Your task to perform on an android device: turn on airplane mode Image 0: 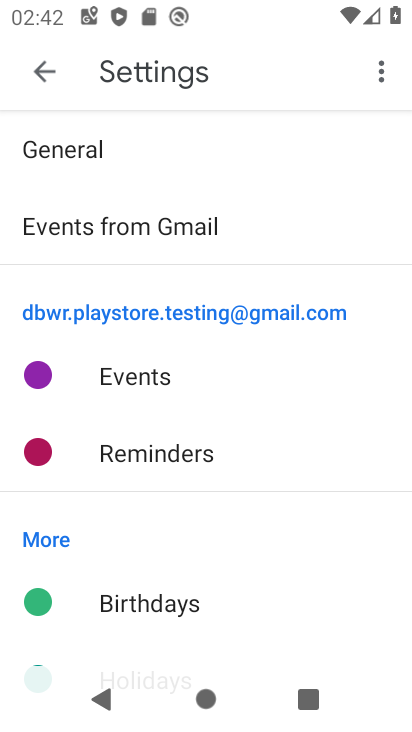
Step 0: press home button
Your task to perform on an android device: turn on airplane mode Image 1: 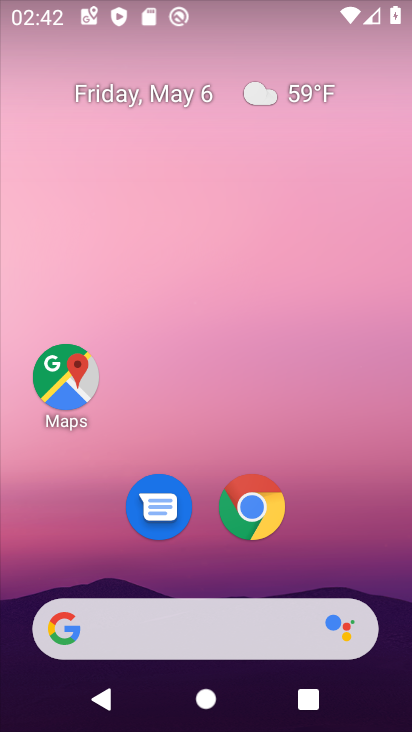
Step 1: drag from (334, 542) to (369, 146)
Your task to perform on an android device: turn on airplane mode Image 2: 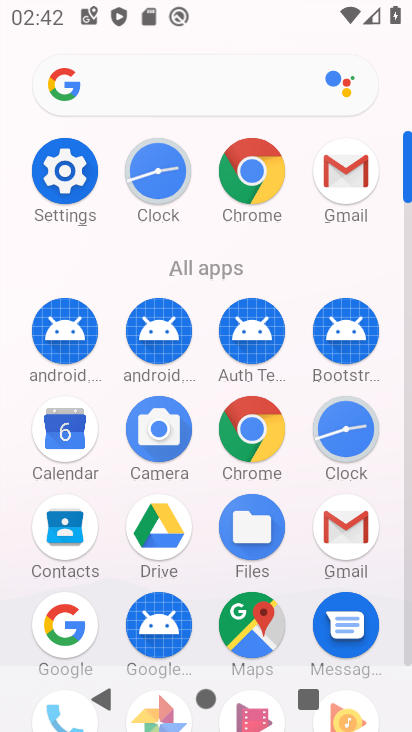
Step 2: click (68, 175)
Your task to perform on an android device: turn on airplane mode Image 3: 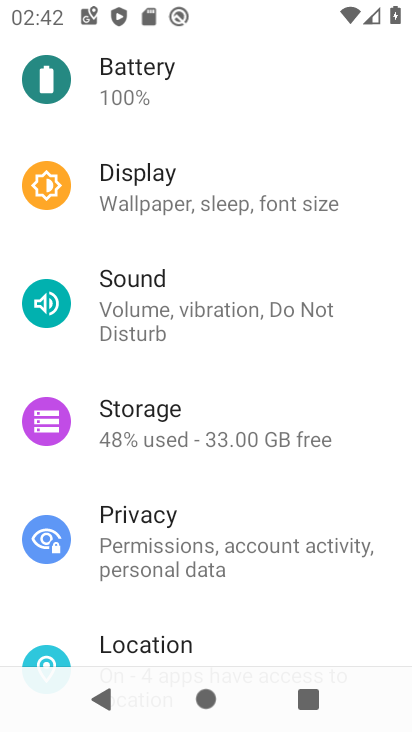
Step 3: drag from (254, 161) to (277, 591)
Your task to perform on an android device: turn on airplane mode Image 4: 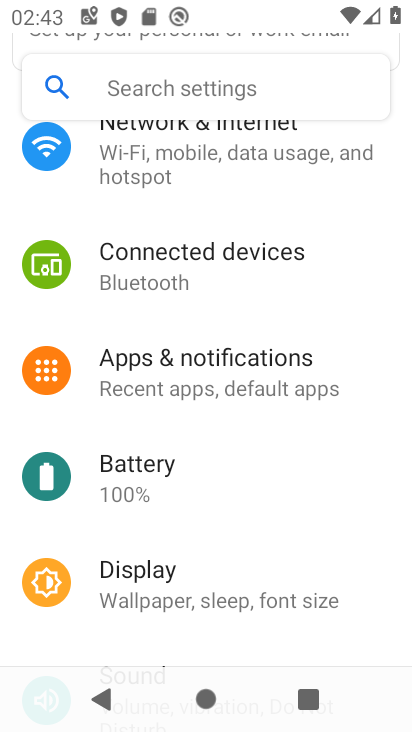
Step 4: drag from (249, 257) to (235, 421)
Your task to perform on an android device: turn on airplane mode Image 5: 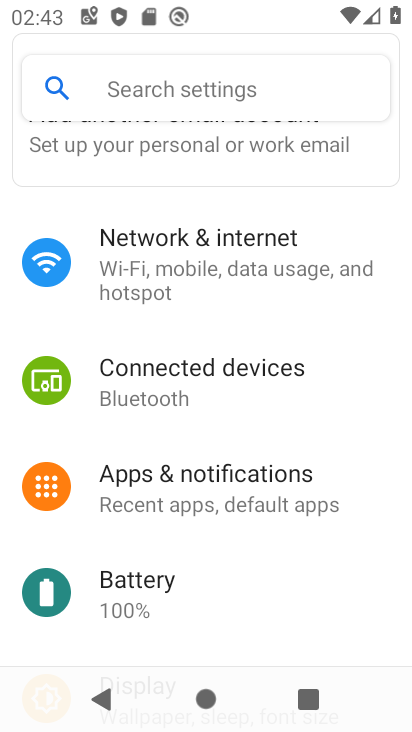
Step 5: click (213, 283)
Your task to perform on an android device: turn on airplane mode Image 6: 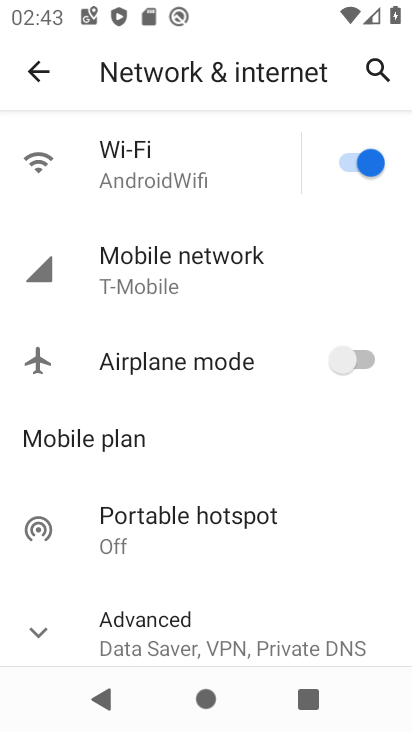
Step 6: click (344, 366)
Your task to perform on an android device: turn on airplane mode Image 7: 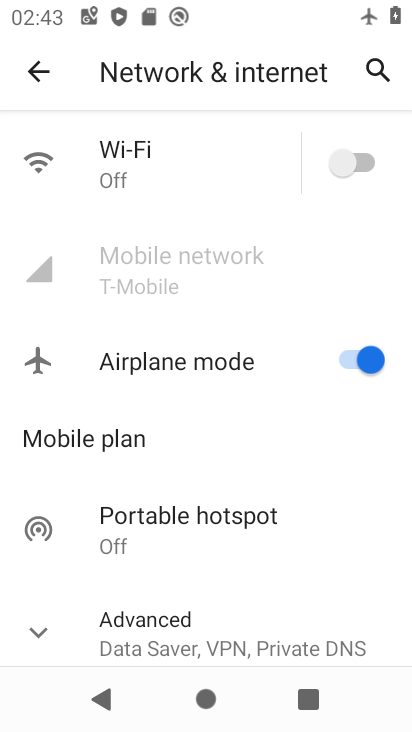
Step 7: task complete